Your task to perform on an android device: open app "Microsoft Outlook" (install if not already installed) and enter user name: "brand@gmail.com" and password: "persuasiveness" Image 0: 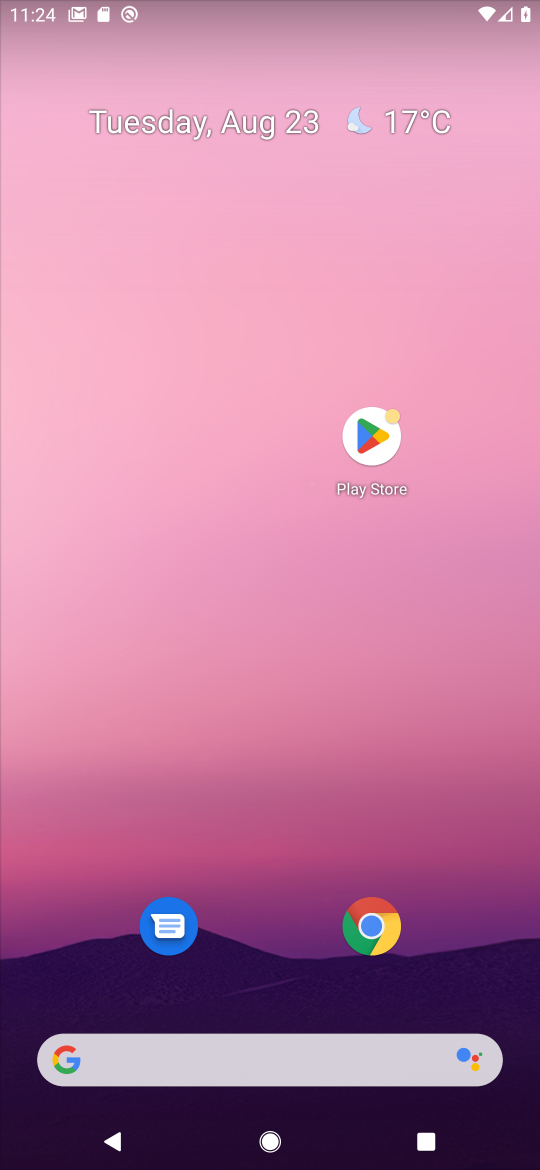
Step 0: click (370, 432)
Your task to perform on an android device: open app "Microsoft Outlook" (install if not already installed) and enter user name: "brand@gmail.com" and password: "persuasiveness" Image 1: 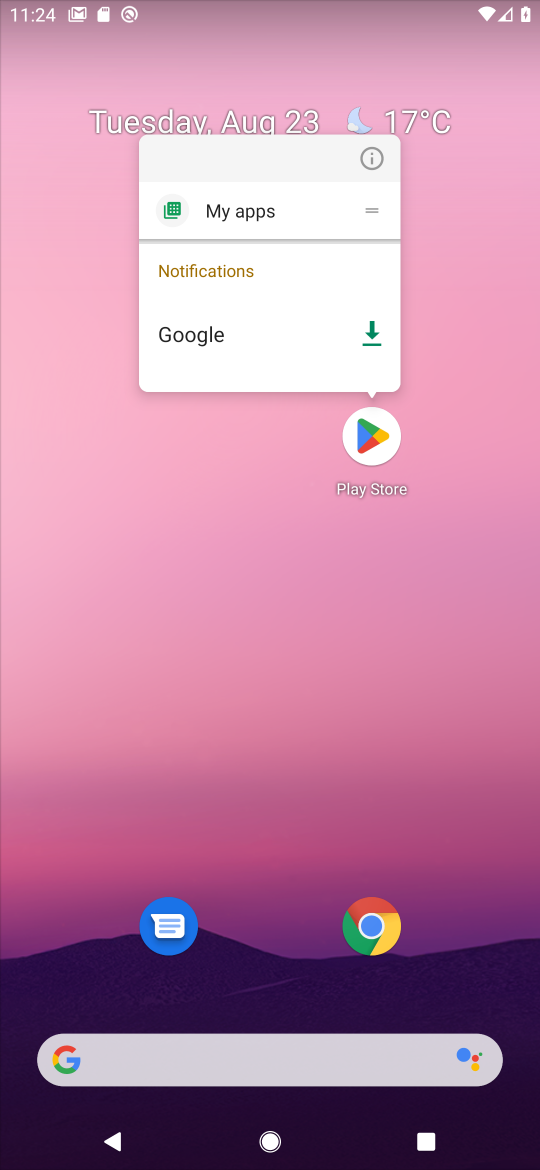
Step 1: click (370, 438)
Your task to perform on an android device: open app "Microsoft Outlook" (install if not already installed) and enter user name: "brand@gmail.com" and password: "persuasiveness" Image 2: 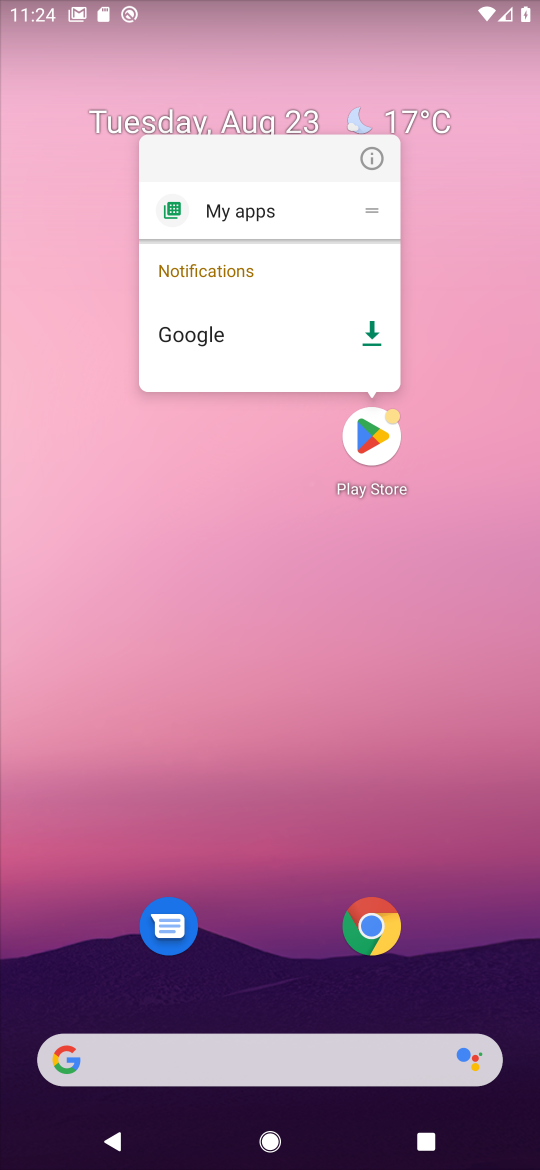
Step 2: click (370, 438)
Your task to perform on an android device: open app "Microsoft Outlook" (install if not already installed) and enter user name: "brand@gmail.com" and password: "persuasiveness" Image 3: 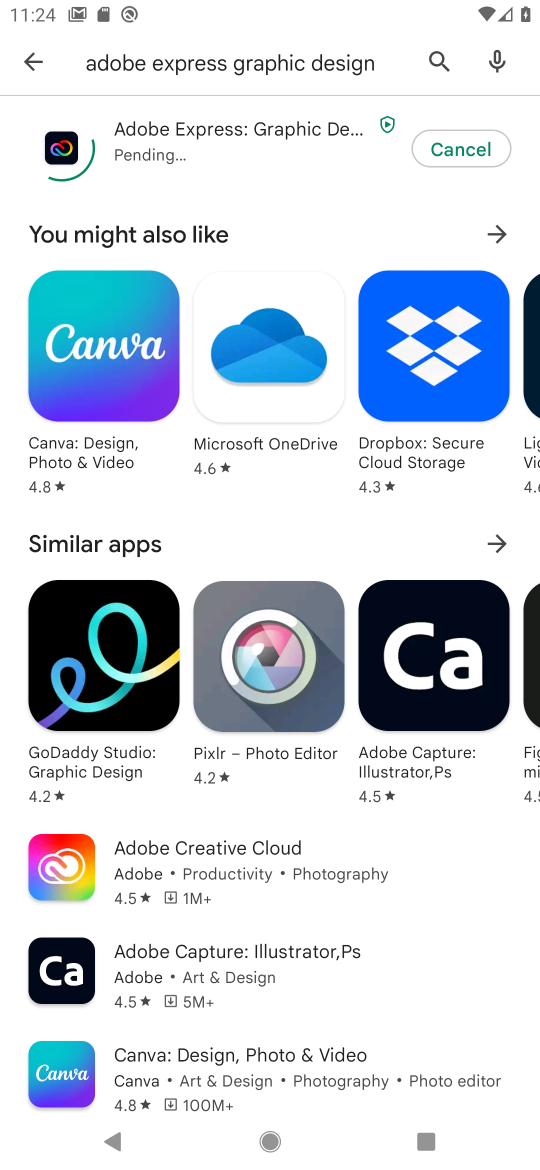
Step 3: click (424, 51)
Your task to perform on an android device: open app "Microsoft Outlook" (install if not already installed) and enter user name: "brand@gmail.com" and password: "persuasiveness" Image 4: 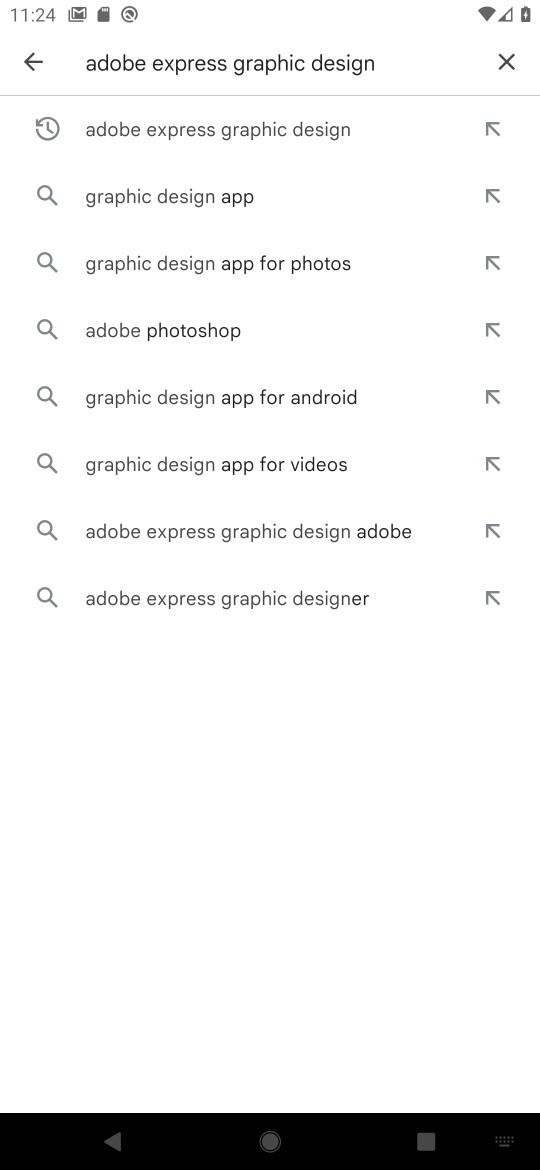
Step 4: click (510, 57)
Your task to perform on an android device: open app "Microsoft Outlook" (install if not already installed) and enter user name: "brand@gmail.com" and password: "persuasiveness" Image 5: 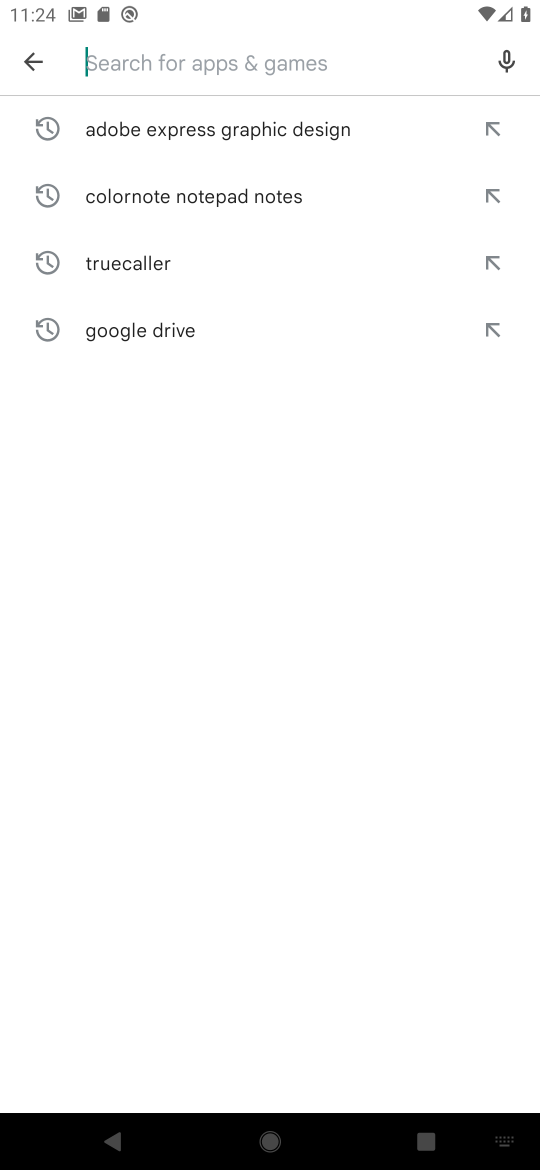
Step 5: type "Microsoft Outlook"
Your task to perform on an android device: open app "Microsoft Outlook" (install if not already installed) and enter user name: "brand@gmail.com" and password: "persuasiveness" Image 6: 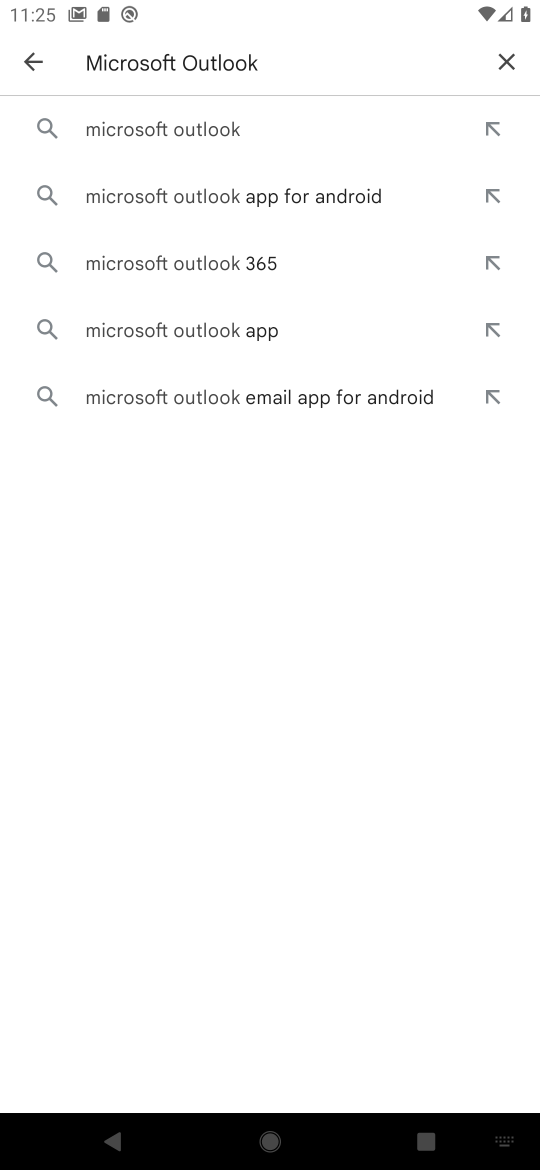
Step 6: click (112, 116)
Your task to perform on an android device: open app "Microsoft Outlook" (install if not already installed) and enter user name: "brand@gmail.com" and password: "persuasiveness" Image 7: 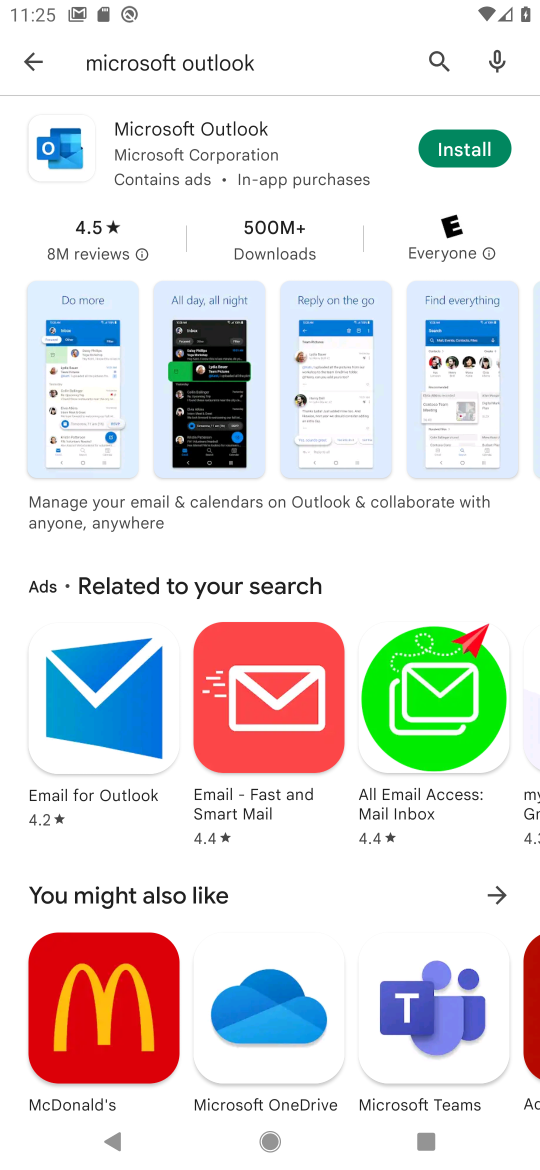
Step 7: click (471, 154)
Your task to perform on an android device: open app "Microsoft Outlook" (install if not already installed) and enter user name: "brand@gmail.com" and password: "persuasiveness" Image 8: 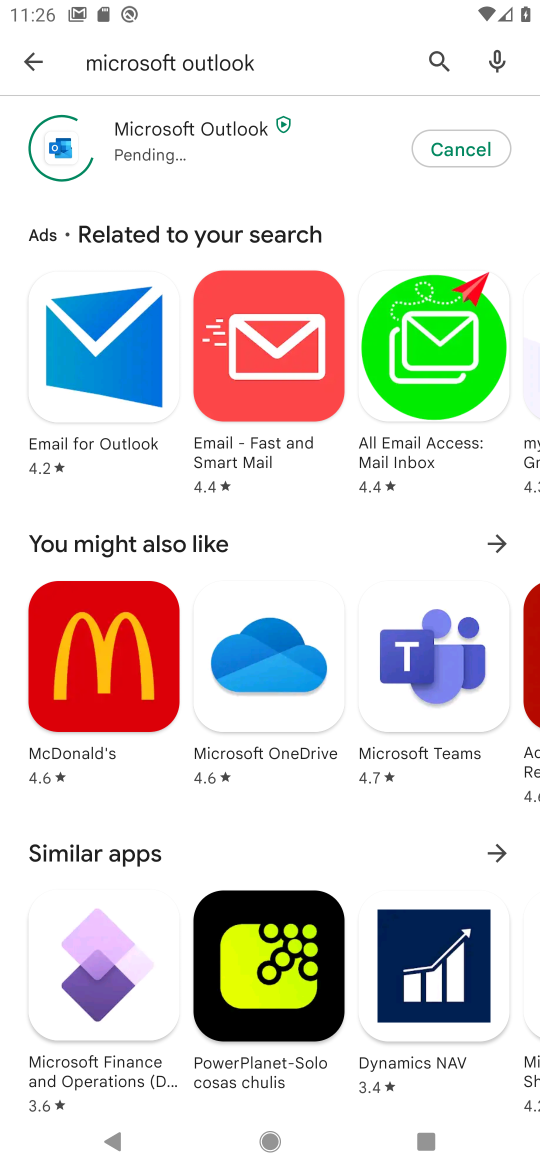
Step 8: task complete